Your task to perform on an android device: Go to location settings Image 0: 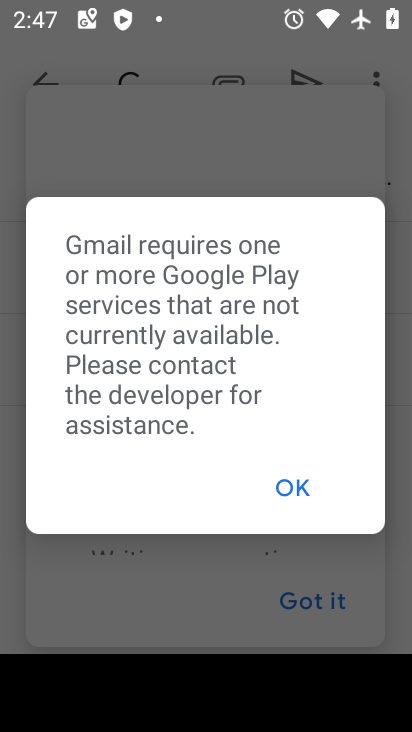
Step 0: press home button
Your task to perform on an android device: Go to location settings Image 1: 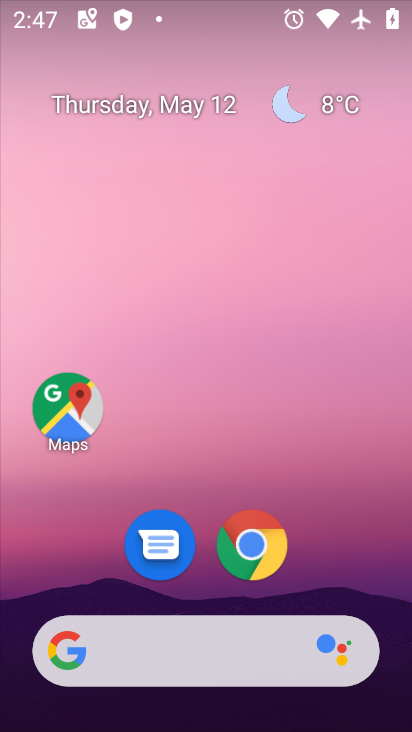
Step 1: drag from (394, 618) to (298, 212)
Your task to perform on an android device: Go to location settings Image 2: 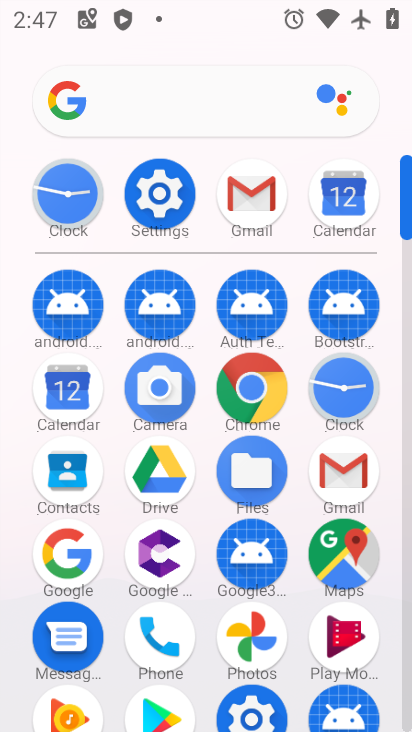
Step 2: click (409, 697)
Your task to perform on an android device: Go to location settings Image 3: 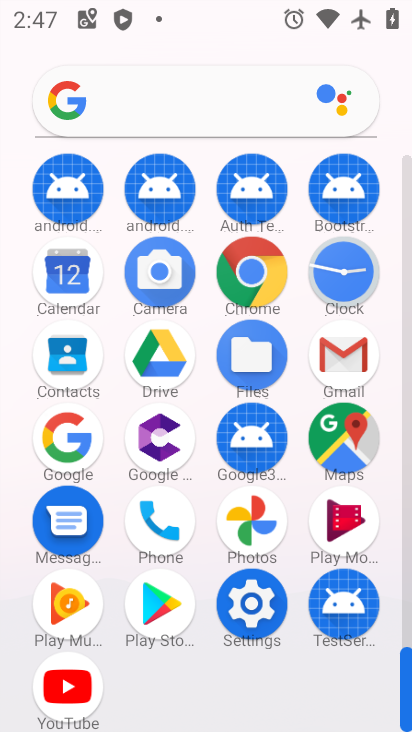
Step 3: click (254, 603)
Your task to perform on an android device: Go to location settings Image 4: 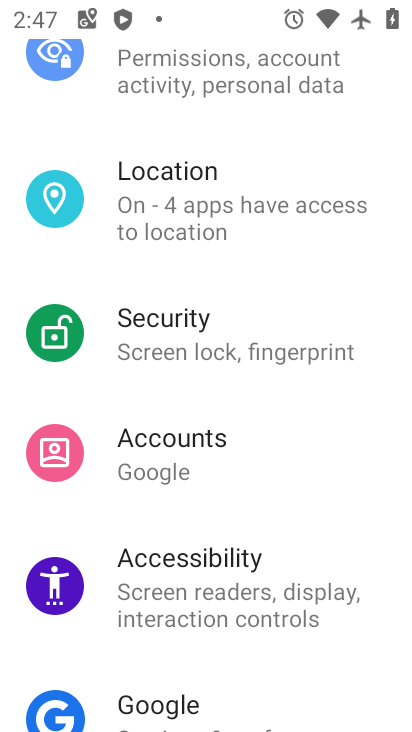
Step 4: click (173, 183)
Your task to perform on an android device: Go to location settings Image 5: 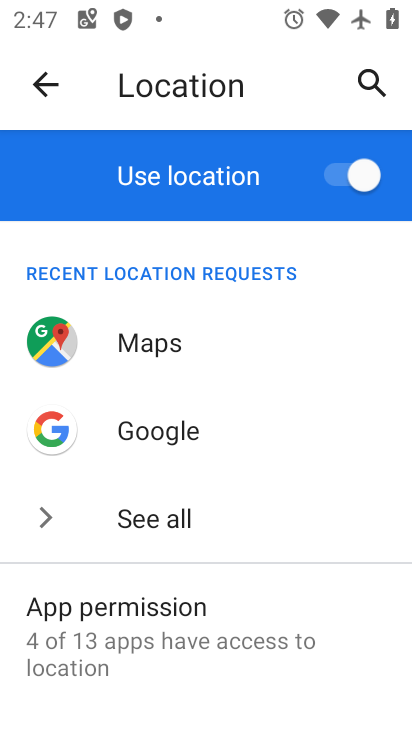
Step 5: drag from (227, 606) to (215, 254)
Your task to perform on an android device: Go to location settings Image 6: 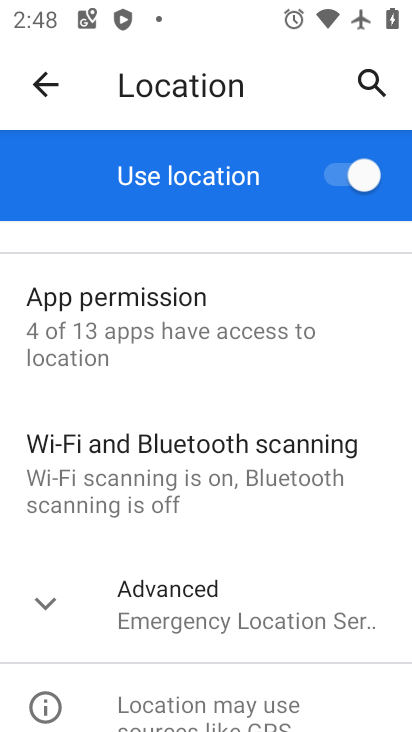
Step 6: click (47, 604)
Your task to perform on an android device: Go to location settings Image 7: 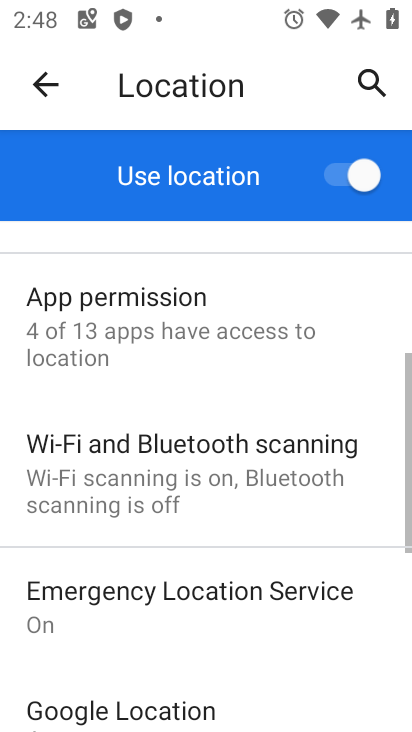
Step 7: task complete